Your task to perform on an android device: turn pop-ups on in chrome Image 0: 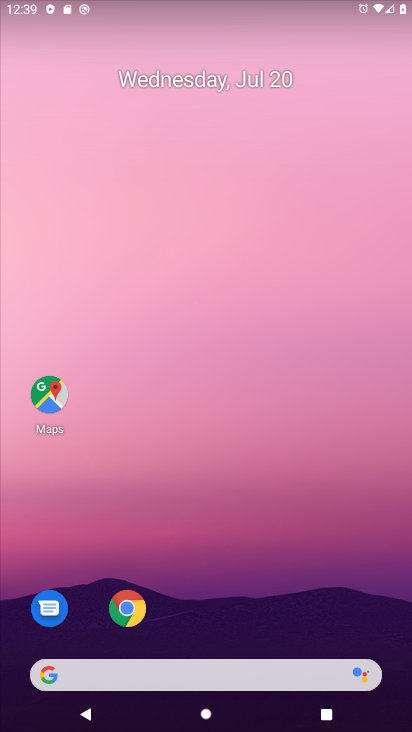
Step 0: click (128, 606)
Your task to perform on an android device: turn pop-ups on in chrome Image 1: 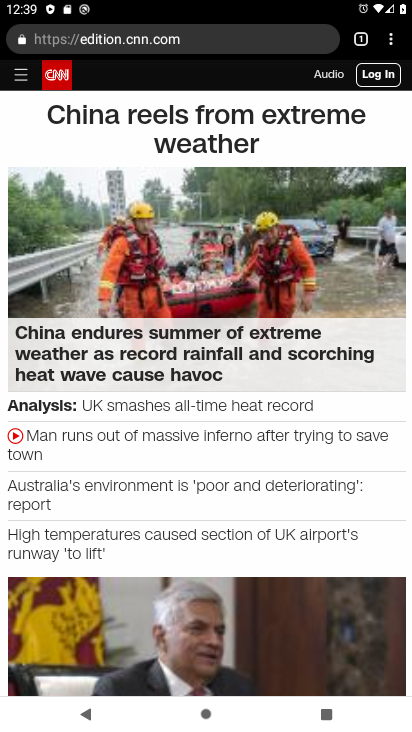
Step 1: click (392, 41)
Your task to perform on an android device: turn pop-ups on in chrome Image 2: 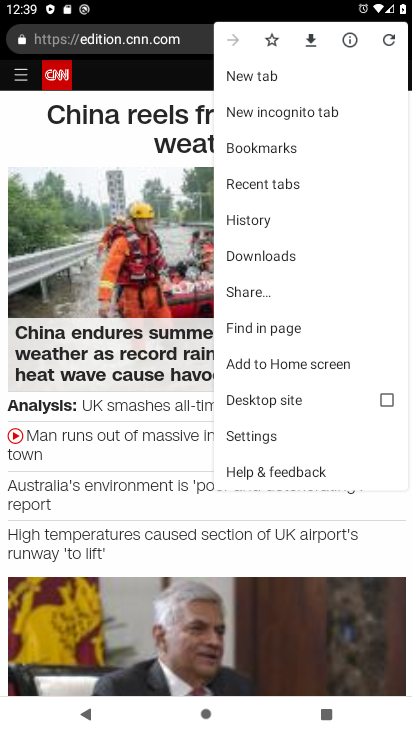
Step 2: click (259, 436)
Your task to perform on an android device: turn pop-ups on in chrome Image 3: 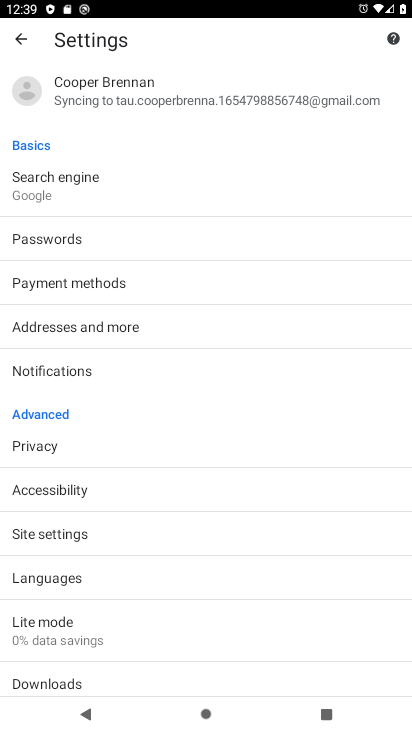
Step 3: click (61, 536)
Your task to perform on an android device: turn pop-ups on in chrome Image 4: 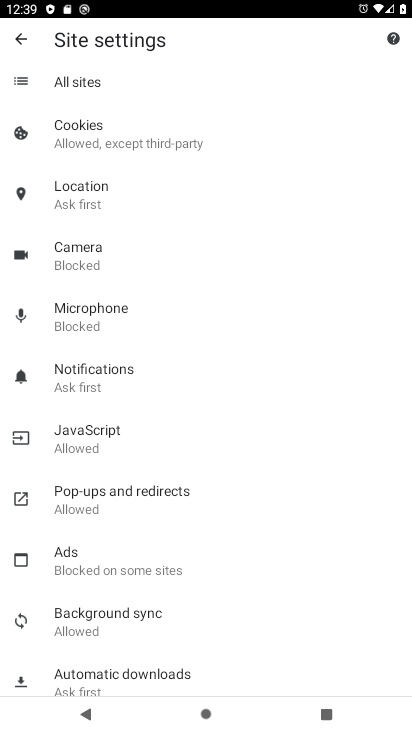
Step 4: click (101, 485)
Your task to perform on an android device: turn pop-ups on in chrome Image 5: 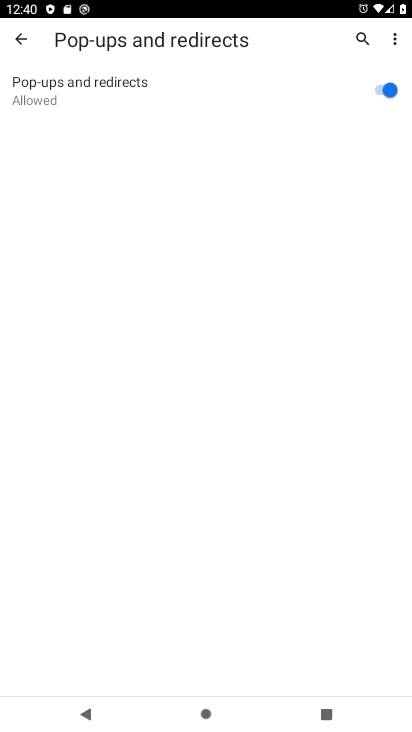
Step 5: task complete